Your task to perform on an android device: open a new tab in the chrome app Image 0: 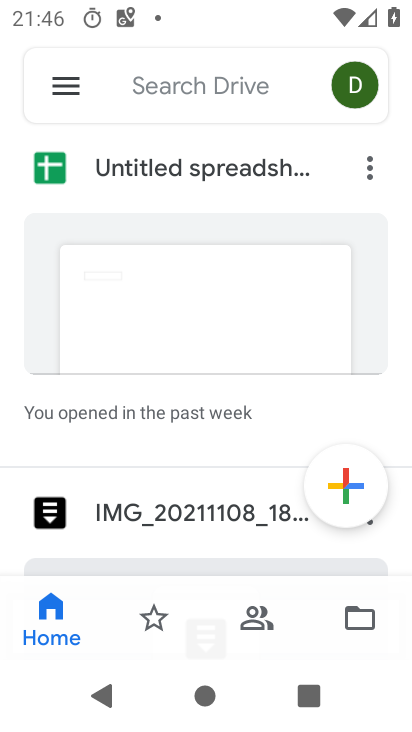
Step 0: drag from (222, 493) to (395, 59)
Your task to perform on an android device: open a new tab in the chrome app Image 1: 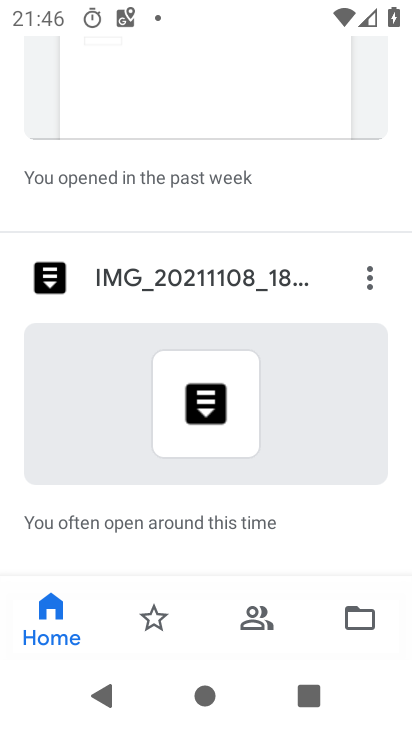
Step 1: press home button
Your task to perform on an android device: open a new tab in the chrome app Image 2: 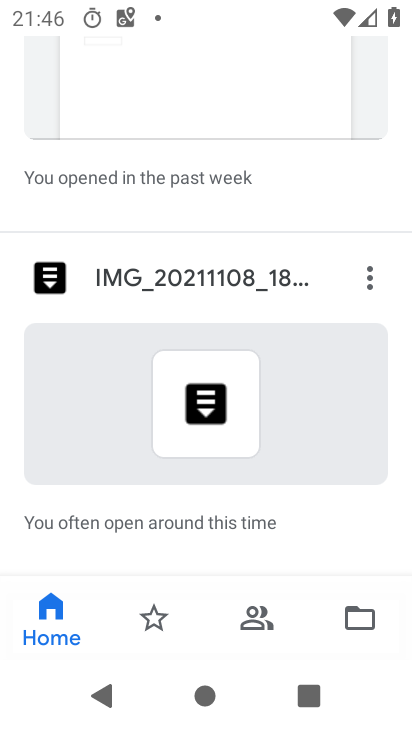
Step 2: press home button
Your task to perform on an android device: open a new tab in the chrome app Image 3: 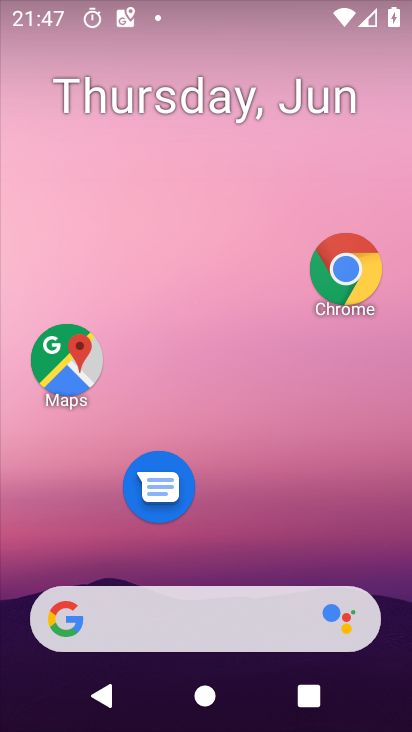
Step 3: drag from (251, 545) to (279, 193)
Your task to perform on an android device: open a new tab in the chrome app Image 4: 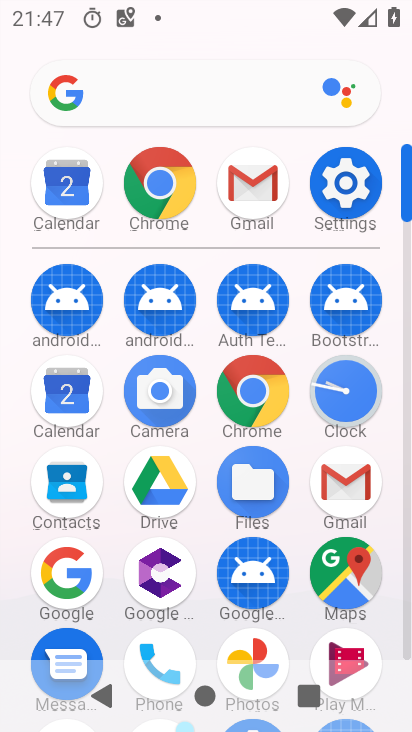
Step 4: click (253, 388)
Your task to perform on an android device: open a new tab in the chrome app Image 5: 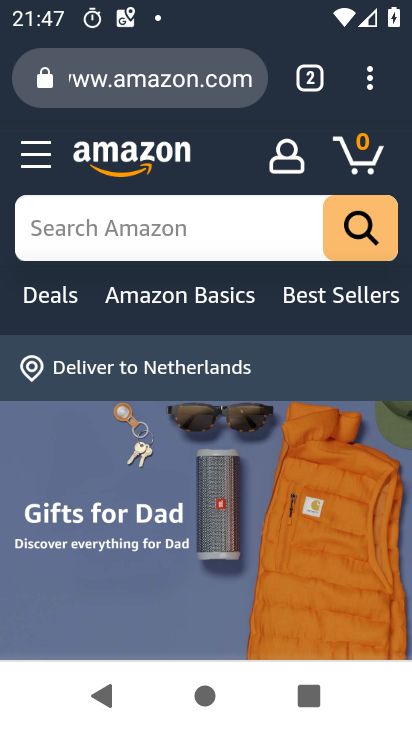
Step 5: drag from (342, 275) to (361, 226)
Your task to perform on an android device: open a new tab in the chrome app Image 6: 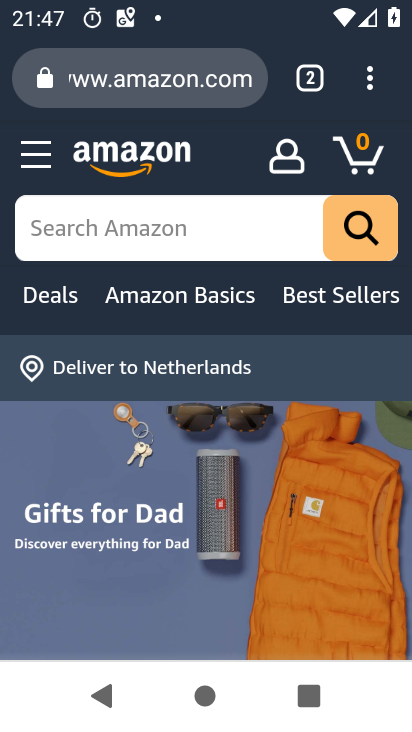
Step 6: click (371, 66)
Your task to perform on an android device: open a new tab in the chrome app Image 7: 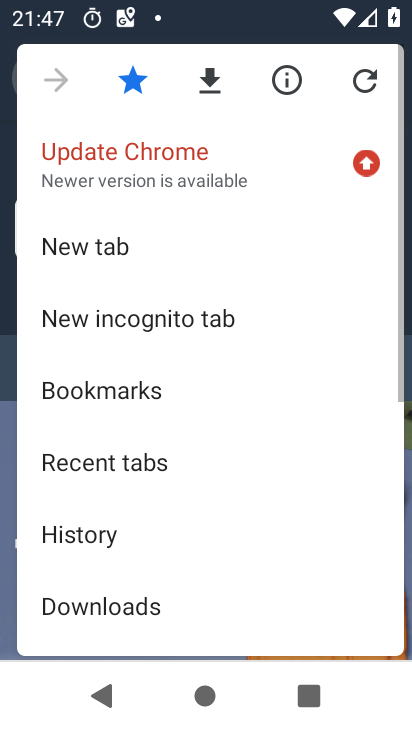
Step 7: click (86, 255)
Your task to perform on an android device: open a new tab in the chrome app Image 8: 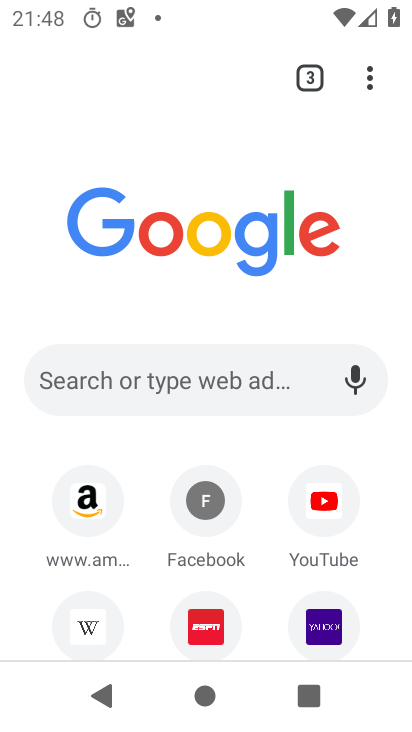
Step 8: task complete